Your task to perform on an android device: Go to location settings Image 0: 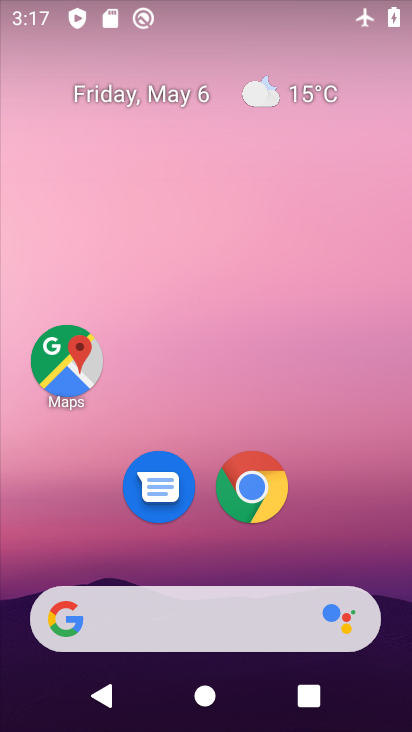
Step 0: drag from (117, 528) to (196, 134)
Your task to perform on an android device: Go to location settings Image 1: 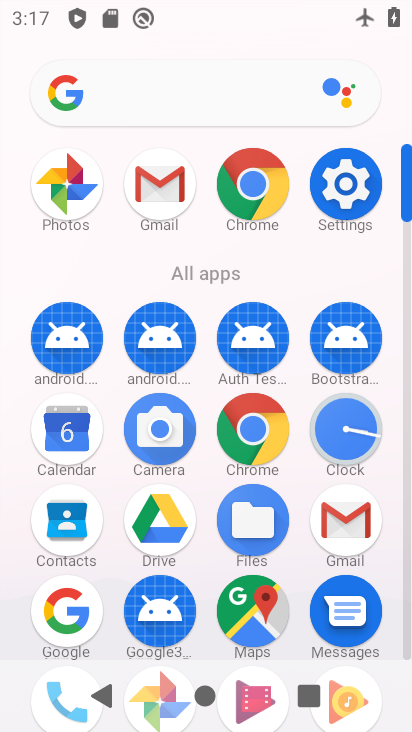
Step 1: drag from (186, 566) to (253, 321)
Your task to perform on an android device: Go to location settings Image 2: 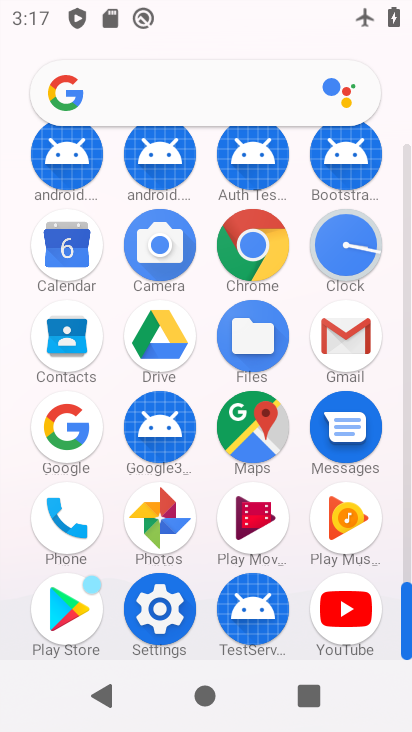
Step 2: click (159, 620)
Your task to perform on an android device: Go to location settings Image 3: 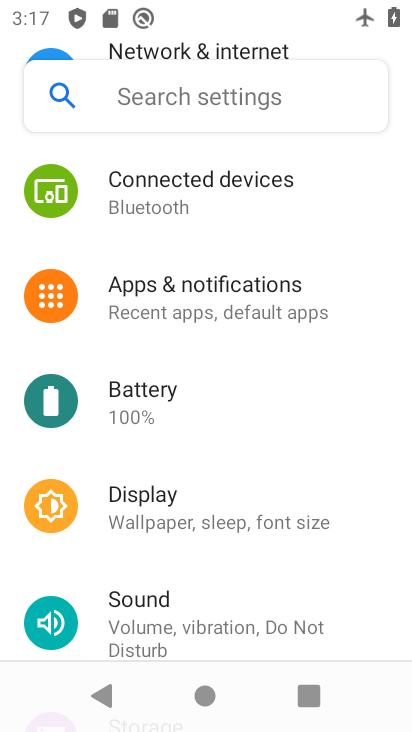
Step 3: drag from (163, 598) to (271, 220)
Your task to perform on an android device: Go to location settings Image 4: 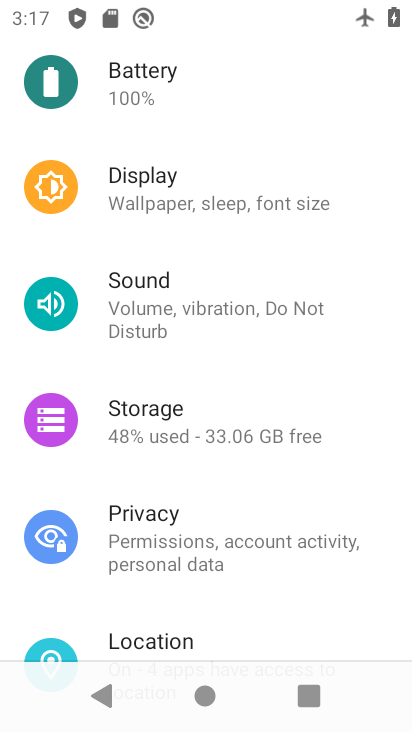
Step 4: drag from (119, 608) to (209, 449)
Your task to perform on an android device: Go to location settings Image 5: 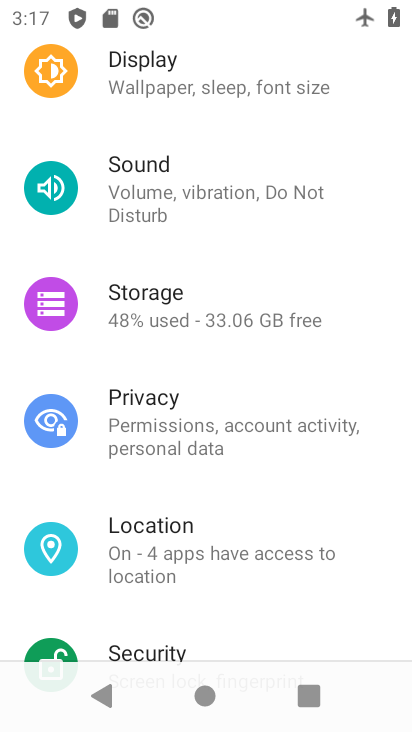
Step 5: click (138, 536)
Your task to perform on an android device: Go to location settings Image 6: 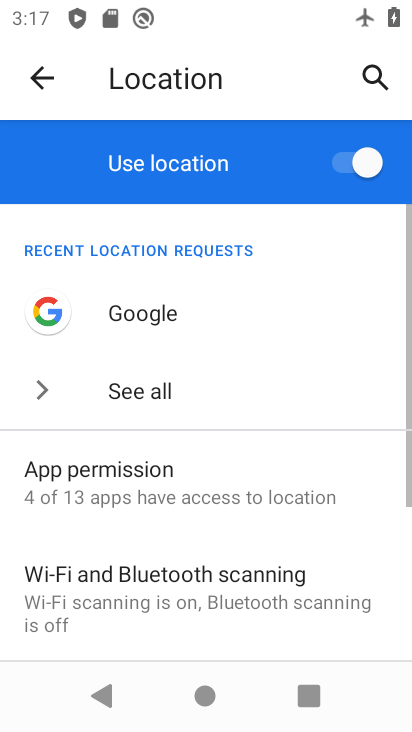
Step 6: task complete